Your task to perform on an android device: Is it going to rain today? Image 0: 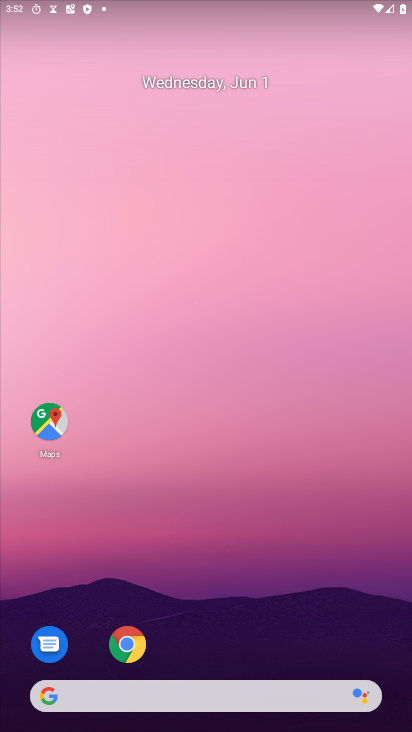
Step 0: click (226, 698)
Your task to perform on an android device: Is it going to rain today? Image 1: 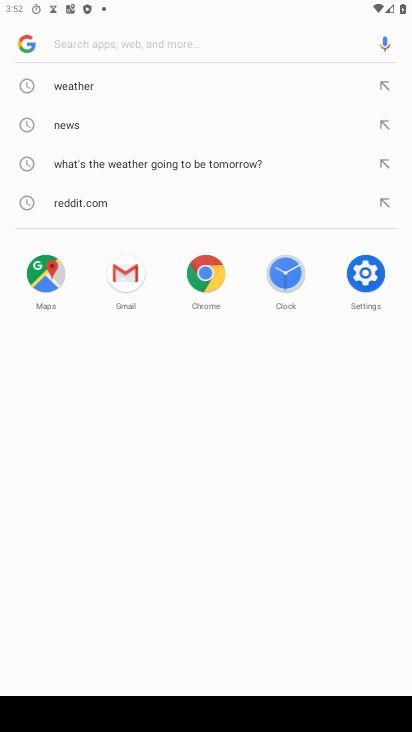
Step 1: click (224, 49)
Your task to perform on an android device: Is it going to rain today? Image 2: 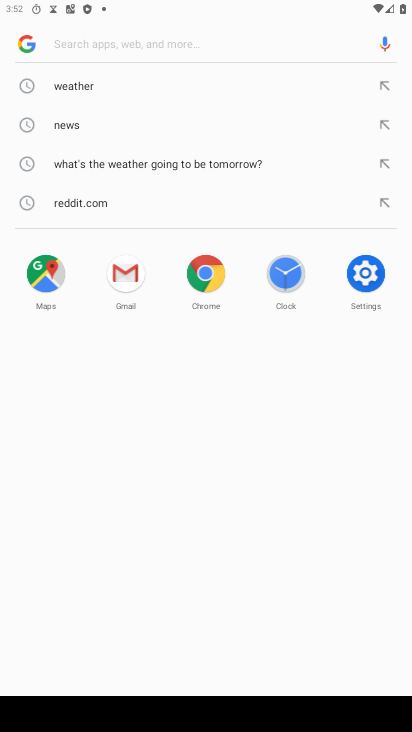
Step 2: type "Is it going to rain today?"
Your task to perform on an android device: Is it going to rain today? Image 3: 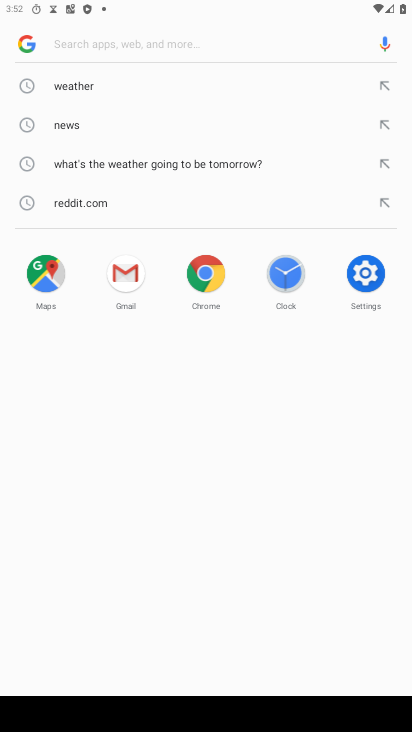
Step 3: click (170, 39)
Your task to perform on an android device: Is it going to rain today? Image 4: 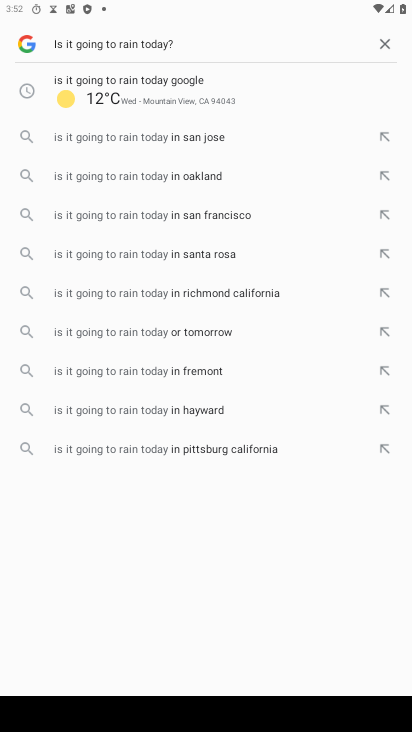
Step 4: click (156, 89)
Your task to perform on an android device: Is it going to rain today? Image 5: 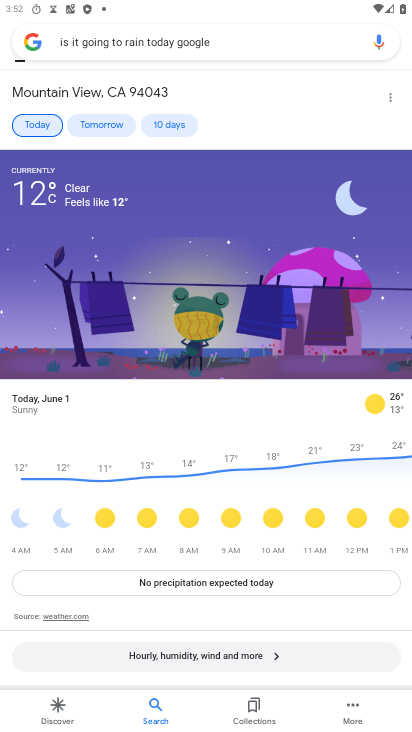
Step 5: task complete